Your task to perform on an android device: Check the news Image 0: 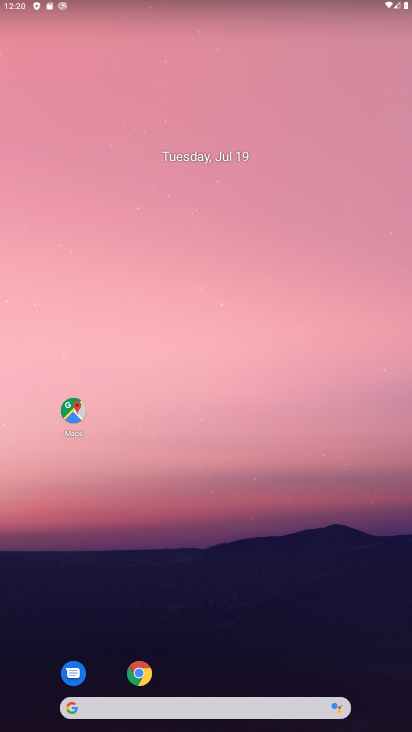
Step 0: click (140, 674)
Your task to perform on an android device: Check the news Image 1: 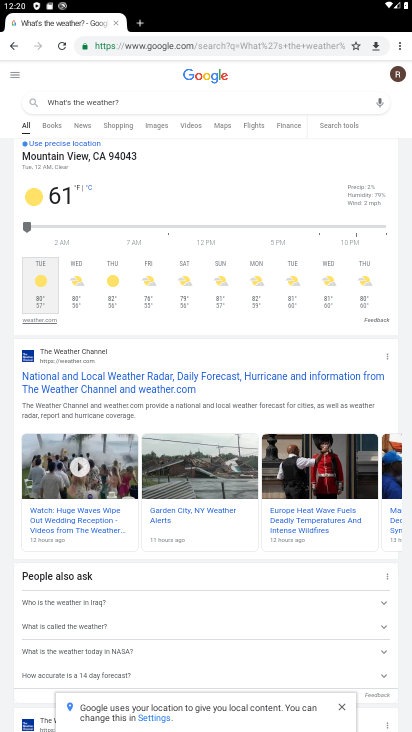
Step 1: click (195, 96)
Your task to perform on an android device: Check the news Image 2: 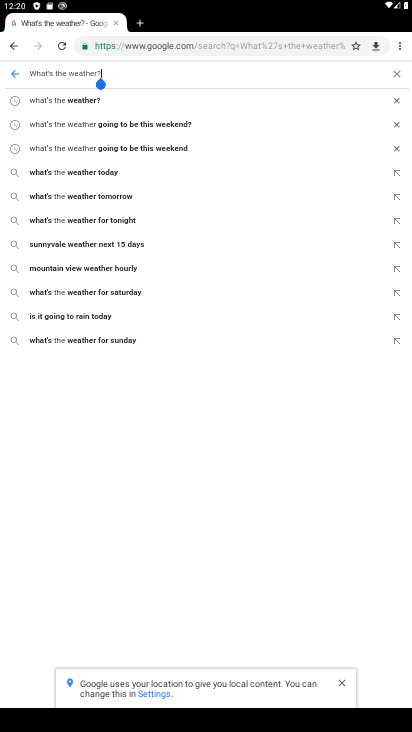
Step 2: click (392, 75)
Your task to perform on an android device: Check the news Image 3: 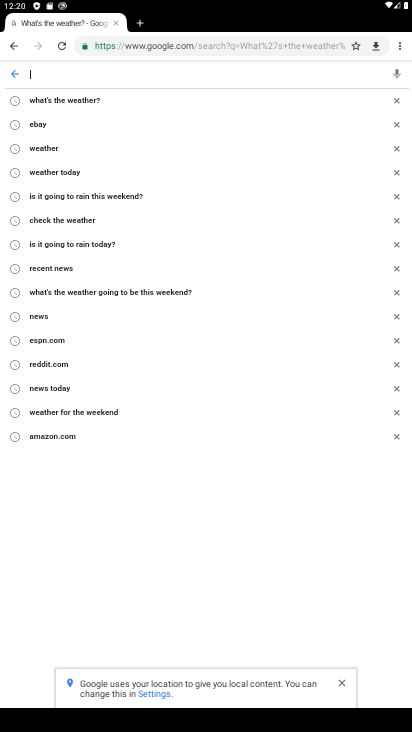
Step 3: type "Check the news"
Your task to perform on an android device: Check the news Image 4: 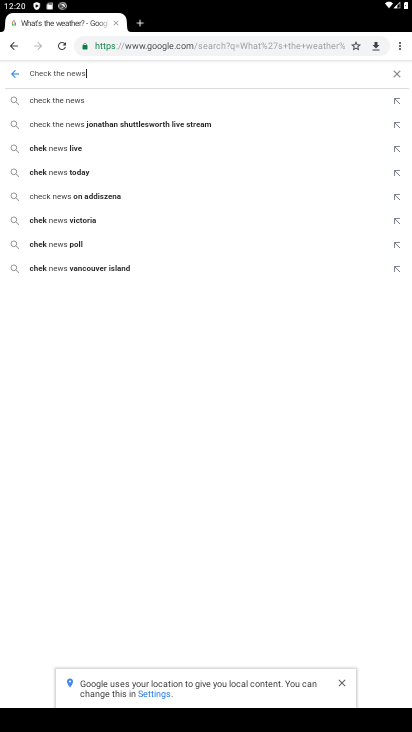
Step 4: click (241, 93)
Your task to perform on an android device: Check the news Image 5: 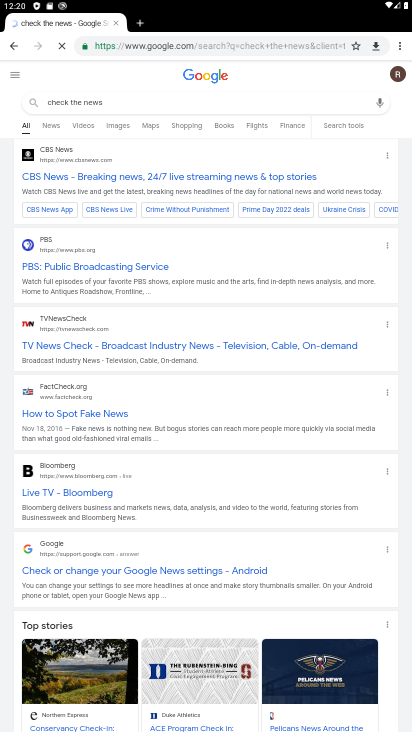
Step 5: click (222, 174)
Your task to perform on an android device: Check the news Image 6: 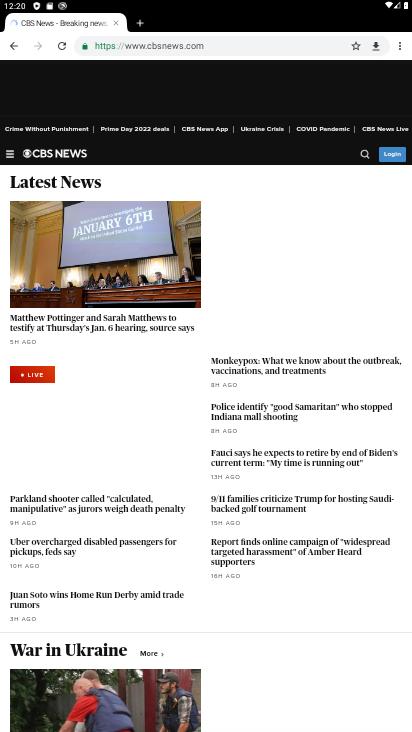
Step 6: task complete